Your task to perform on an android device: turn notification dots on Image 0: 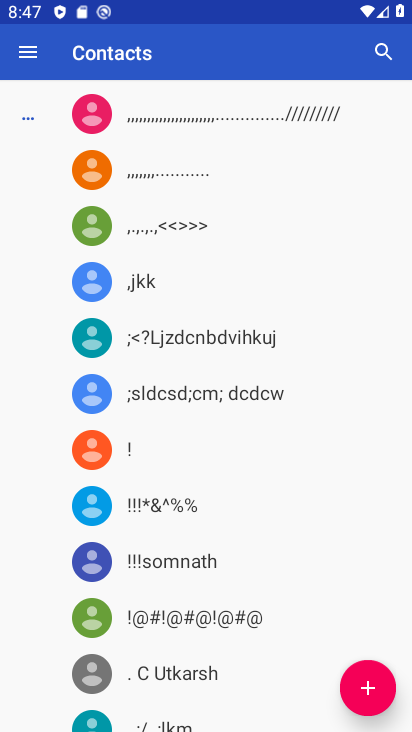
Step 0: press home button
Your task to perform on an android device: turn notification dots on Image 1: 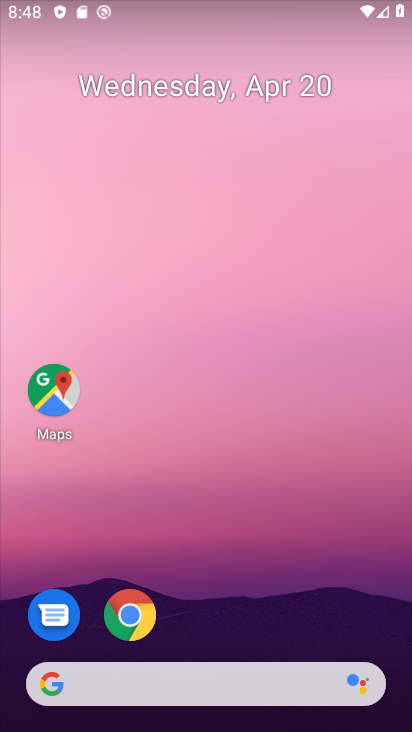
Step 1: click (127, 613)
Your task to perform on an android device: turn notification dots on Image 2: 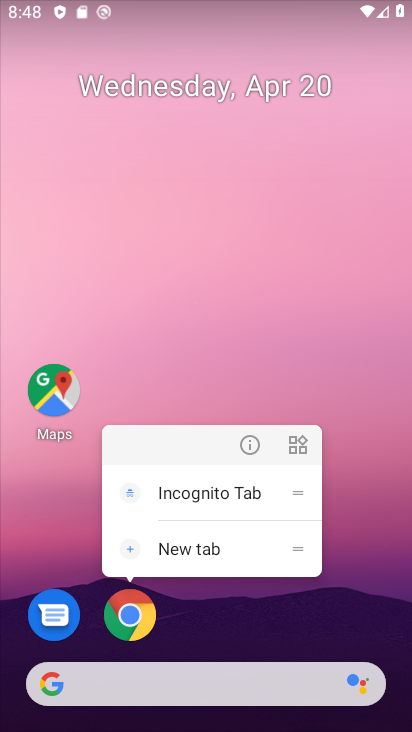
Step 2: click (246, 448)
Your task to perform on an android device: turn notification dots on Image 3: 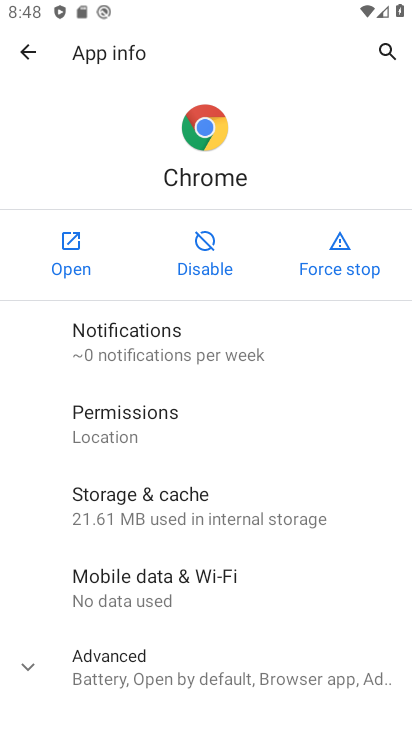
Step 3: click (63, 246)
Your task to perform on an android device: turn notification dots on Image 4: 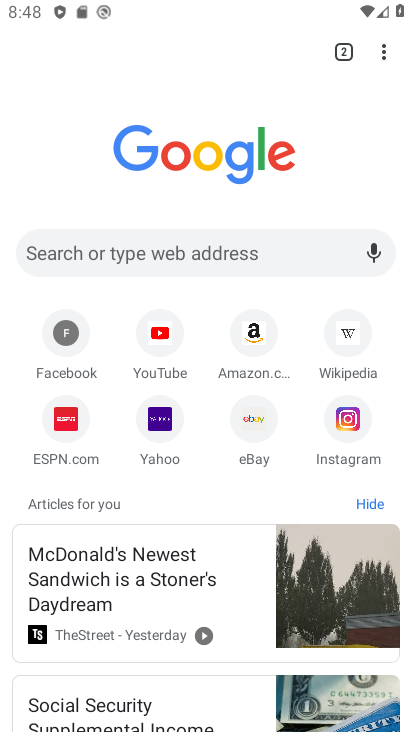
Step 4: click (379, 49)
Your task to perform on an android device: turn notification dots on Image 5: 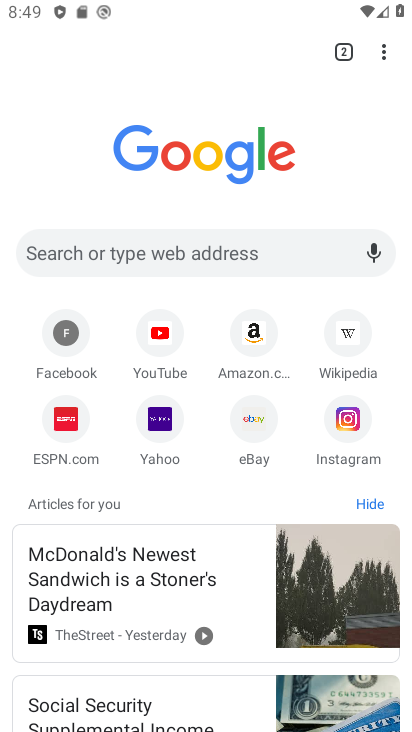
Step 5: click (378, 48)
Your task to perform on an android device: turn notification dots on Image 6: 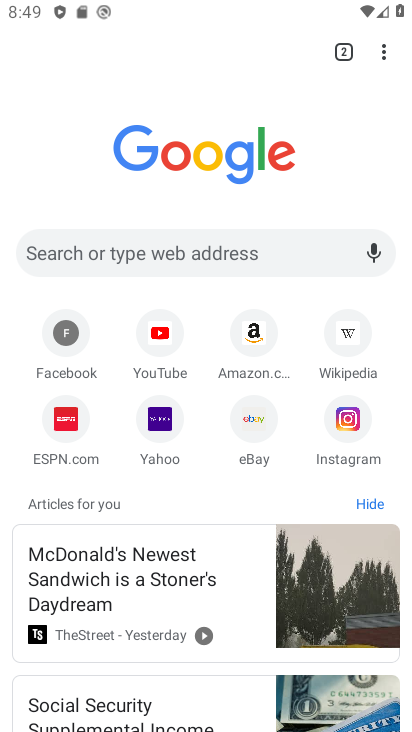
Step 6: click (377, 48)
Your task to perform on an android device: turn notification dots on Image 7: 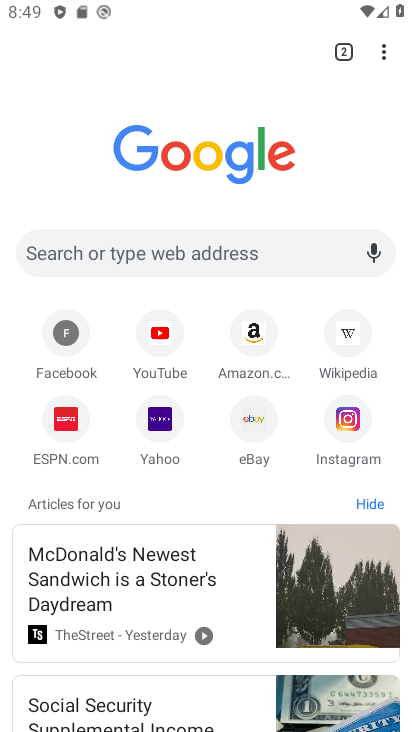
Step 7: click (381, 49)
Your task to perform on an android device: turn notification dots on Image 8: 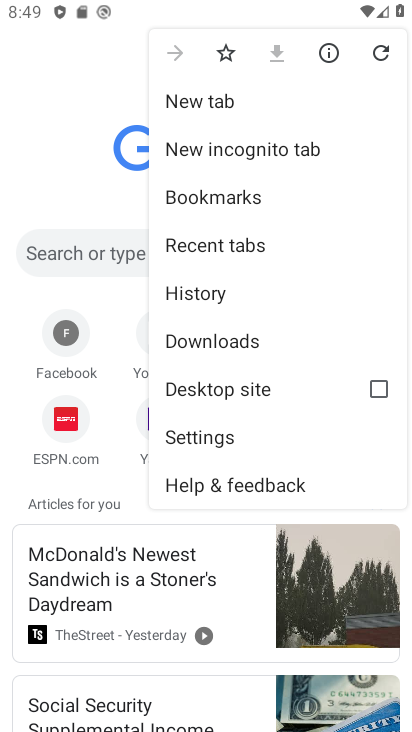
Step 8: click (257, 423)
Your task to perform on an android device: turn notification dots on Image 9: 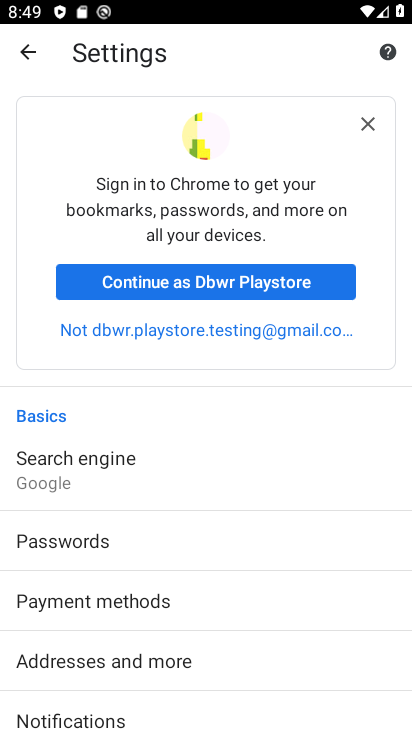
Step 9: drag from (169, 611) to (261, 290)
Your task to perform on an android device: turn notification dots on Image 10: 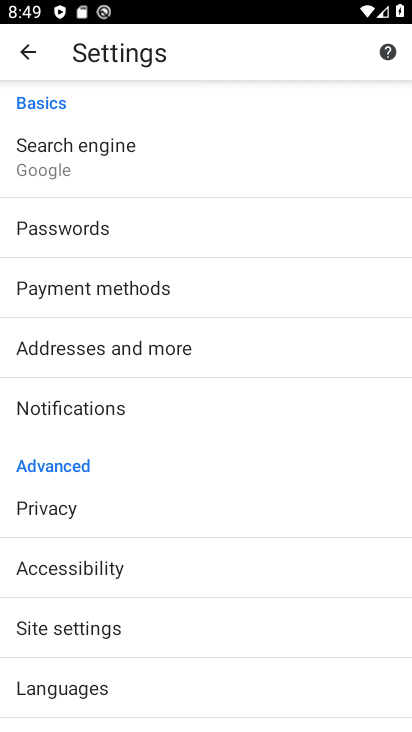
Step 10: click (93, 404)
Your task to perform on an android device: turn notification dots on Image 11: 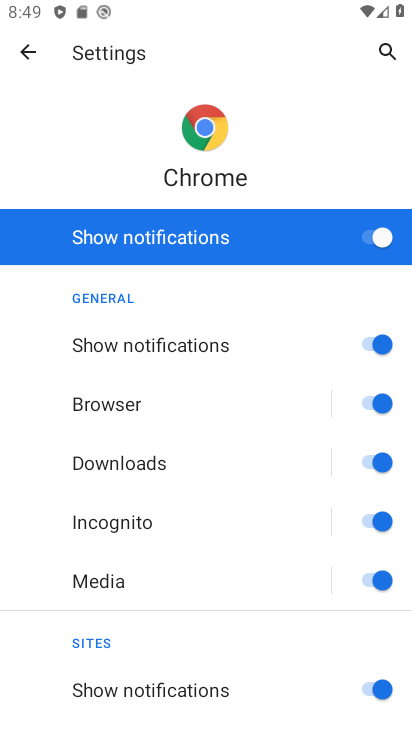
Step 11: drag from (190, 650) to (236, 302)
Your task to perform on an android device: turn notification dots on Image 12: 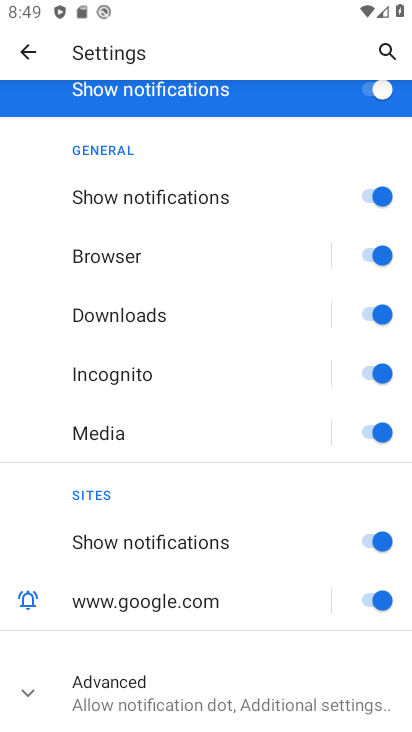
Step 12: click (237, 698)
Your task to perform on an android device: turn notification dots on Image 13: 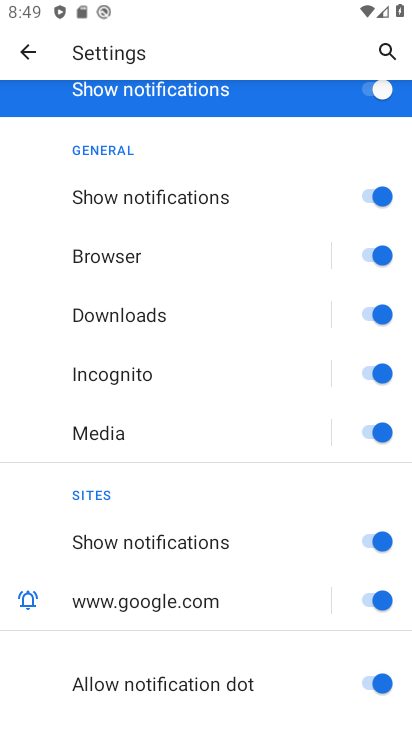
Step 13: task complete